Your task to perform on an android device: toggle pop-ups in chrome Image 0: 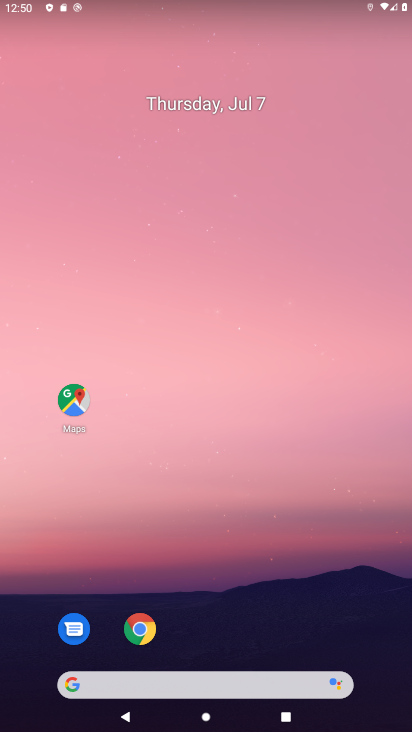
Step 0: click (133, 633)
Your task to perform on an android device: toggle pop-ups in chrome Image 1: 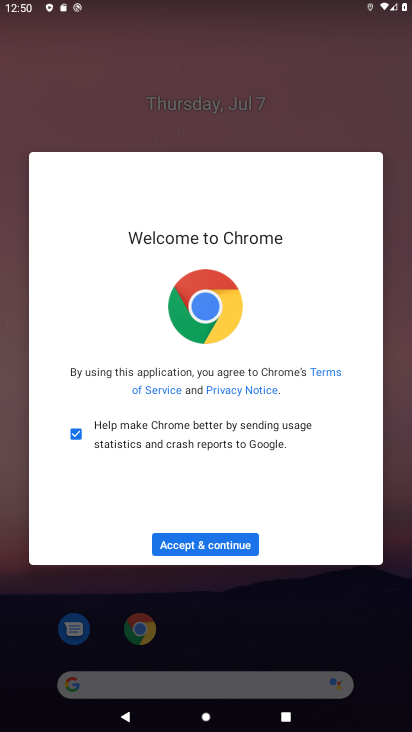
Step 1: click (189, 541)
Your task to perform on an android device: toggle pop-ups in chrome Image 2: 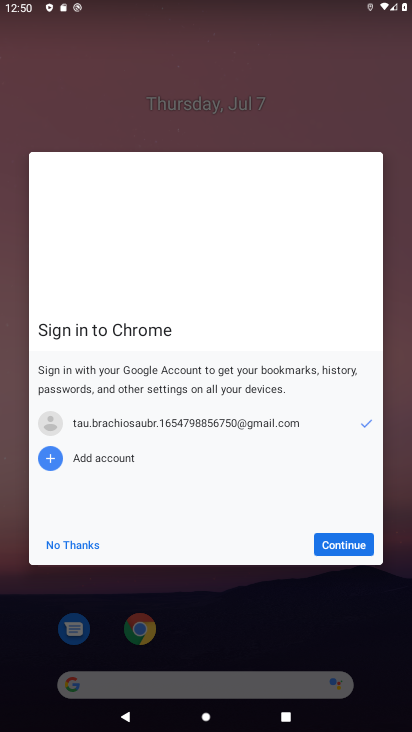
Step 2: click (350, 548)
Your task to perform on an android device: toggle pop-ups in chrome Image 3: 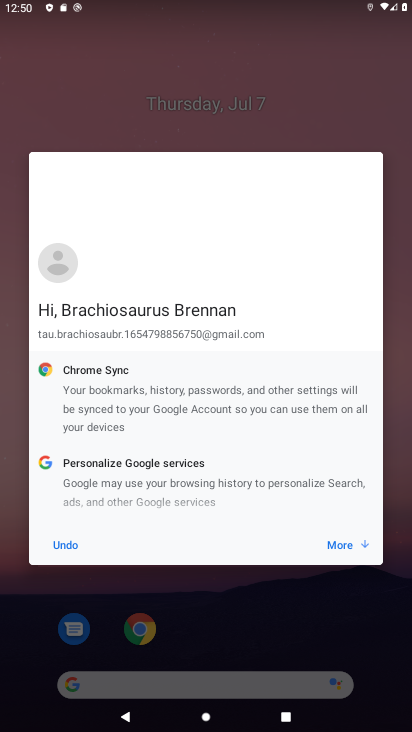
Step 3: click (334, 542)
Your task to perform on an android device: toggle pop-ups in chrome Image 4: 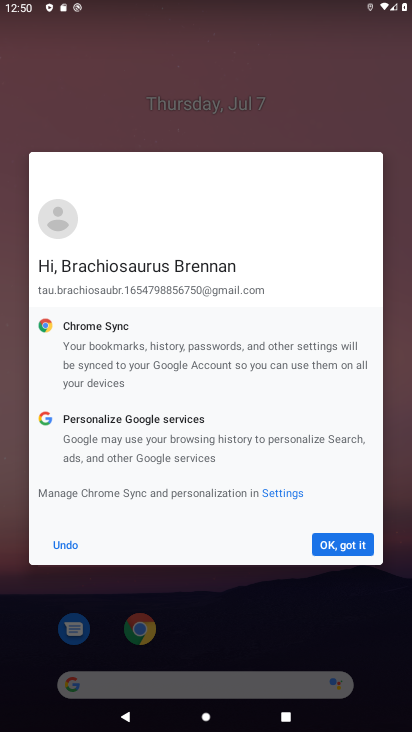
Step 4: click (334, 542)
Your task to perform on an android device: toggle pop-ups in chrome Image 5: 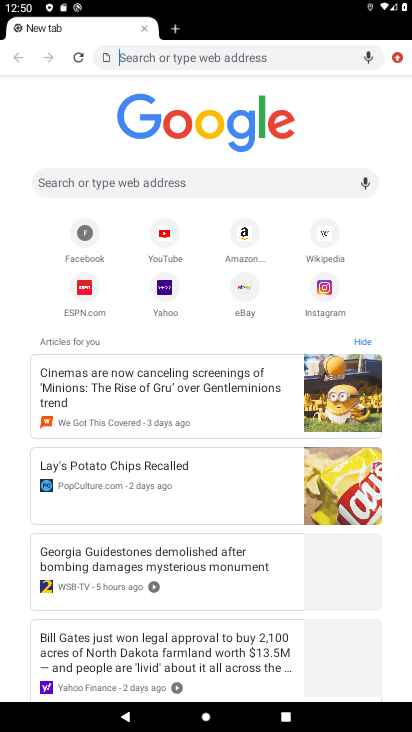
Step 5: click (393, 57)
Your task to perform on an android device: toggle pop-ups in chrome Image 6: 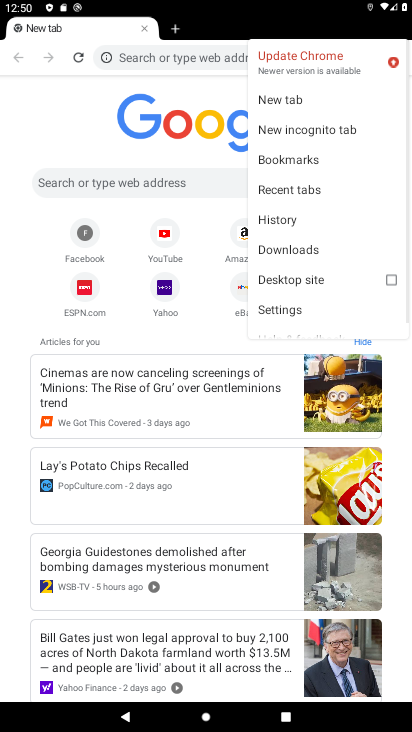
Step 6: click (298, 305)
Your task to perform on an android device: toggle pop-ups in chrome Image 7: 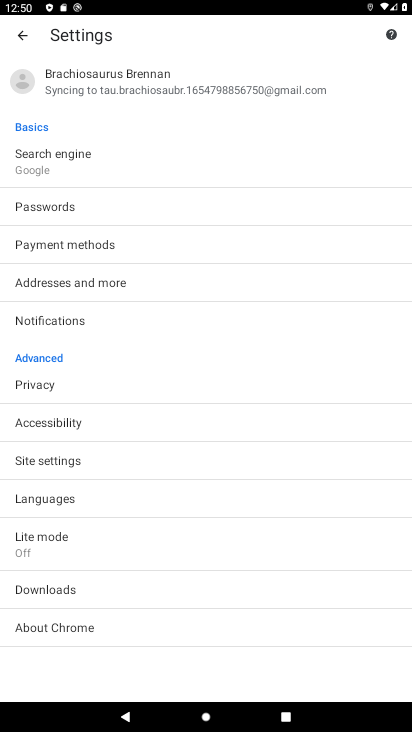
Step 7: drag from (130, 612) to (141, 243)
Your task to perform on an android device: toggle pop-ups in chrome Image 8: 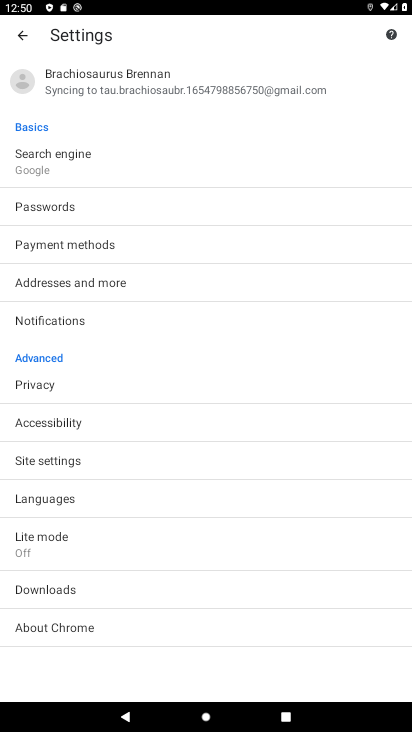
Step 8: click (53, 459)
Your task to perform on an android device: toggle pop-ups in chrome Image 9: 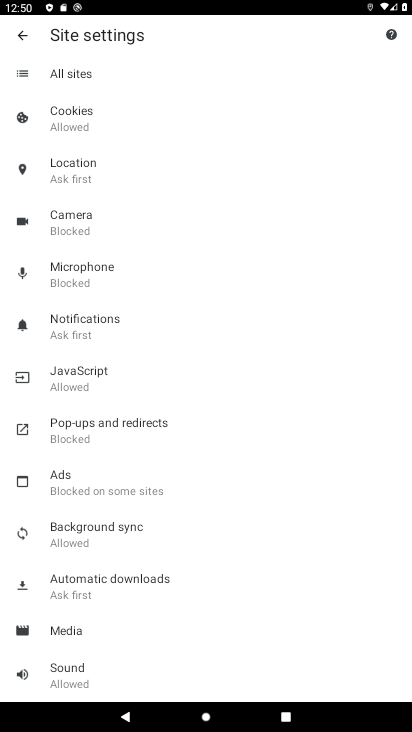
Step 9: click (82, 439)
Your task to perform on an android device: toggle pop-ups in chrome Image 10: 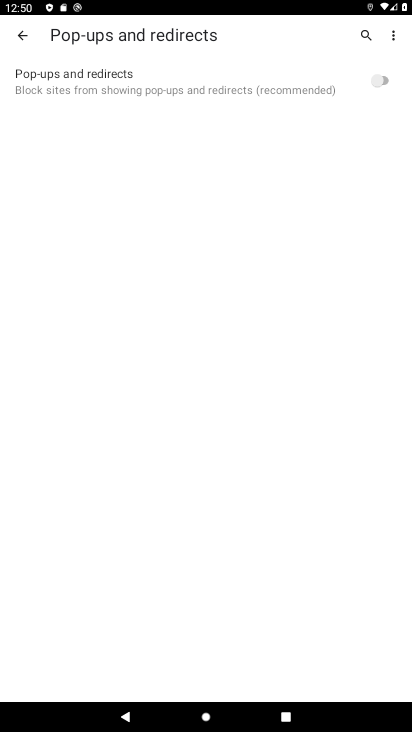
Step 10: click (378, 77)
Your task to perform on an android device: toggle pop-ups in chrome Image 11: 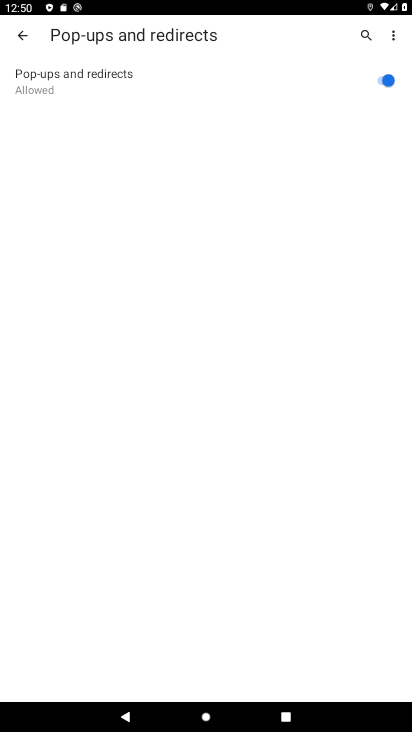
Step 11: task complete